Your task to perform on an android device: Search for seafood restaurants on Google Maps Image 0: 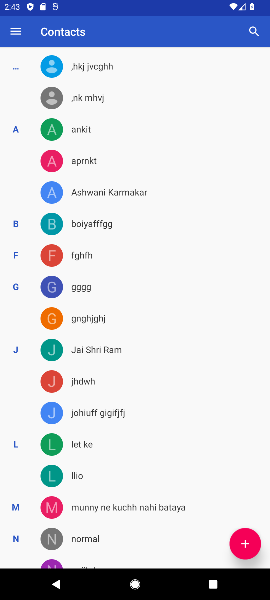
Step 0: press home button
Your task to perform on an android device: Search for seafood restaurants on Google Maps Image 1: 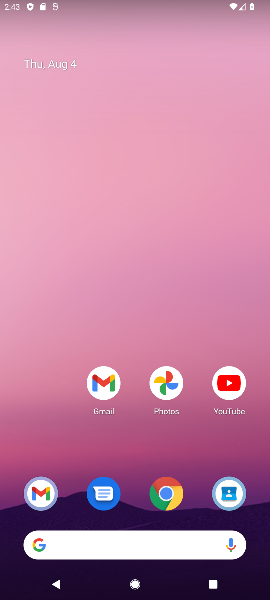
Step 1: drag from (123, 537) to (149, 260)
Your task to perform on an android device: Search for seafood restaurants on Google Maps Image 2: 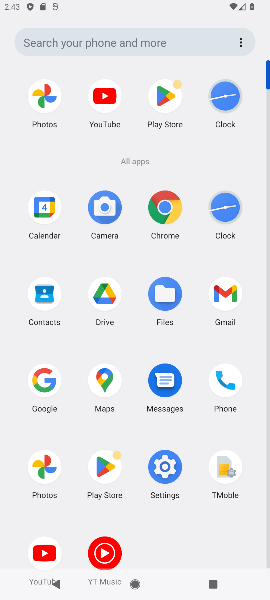
Step 2: click (98, 385)
Your task to perform on an android device: Search for seafood restaurants on Google Maps Image 3: 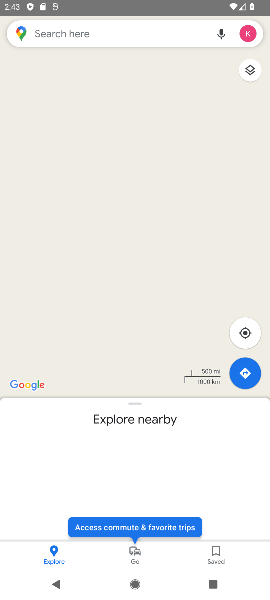
Step 3: click (88, 34)
Your task to perform on an android device: Search for seafood restaurants on Google Maps Image 4: 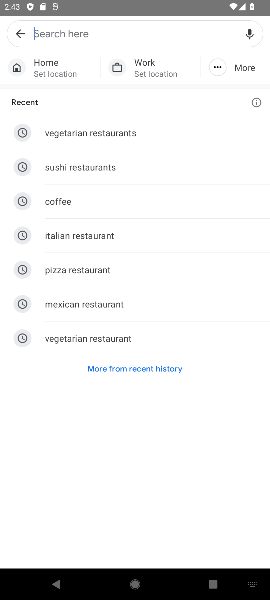
Step 4: type "seafood restaurants "
Your task to perform on an android device: Search for seafood restaurants on Google Maps Image 5: 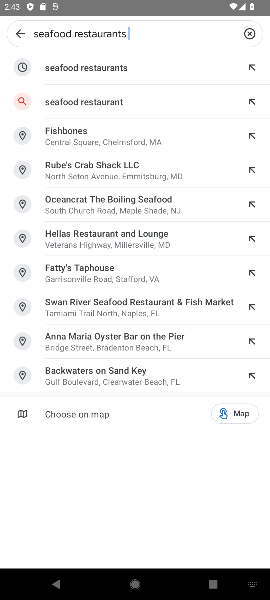
Step 5: click (53, 108)
Your task to perform on an android device: Search for seafood restaurants on Google Maps Image 6: 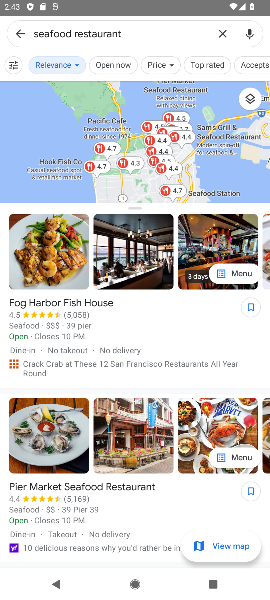
Step 6: task complete